Your task to perform on an android device: turn on notifications settings in the gmail app Image 0: 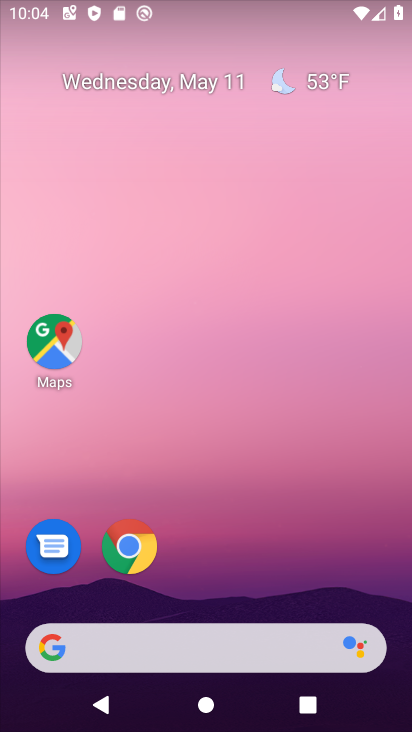
Step 0: drag from (399, 608) to (324, 0)
Your task to perform on an android device: turn on notifications settings in the gmail app Image 1: 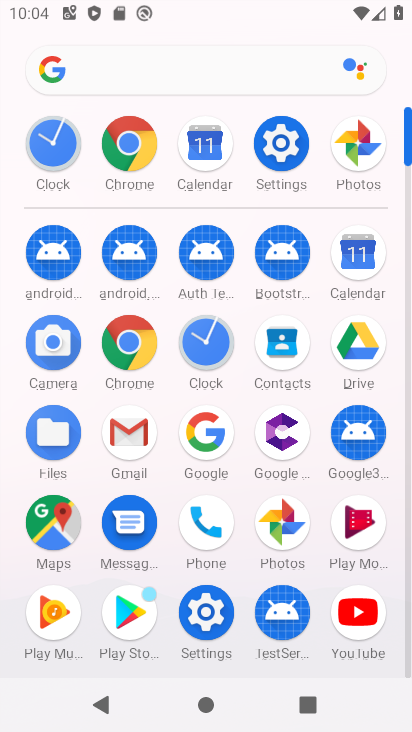
Step 1: click (147, 440)
Your task to perform on an android device: turn on notifications settings in the gmail app Image 2: 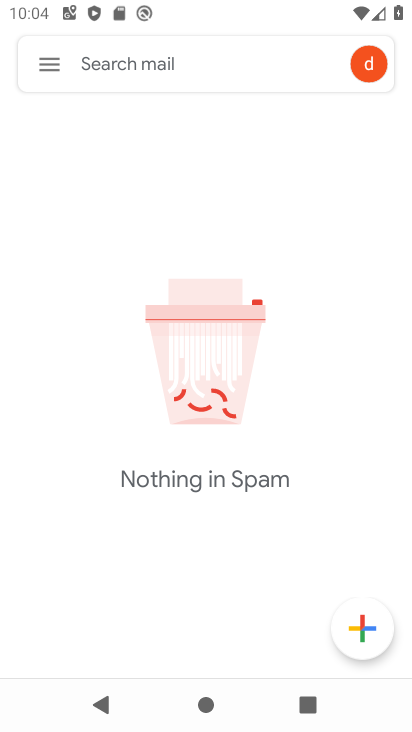
Step 2: click (37, 80)
Your task to perform on an android device: turn on notifications settings in the gmail app Image 3: 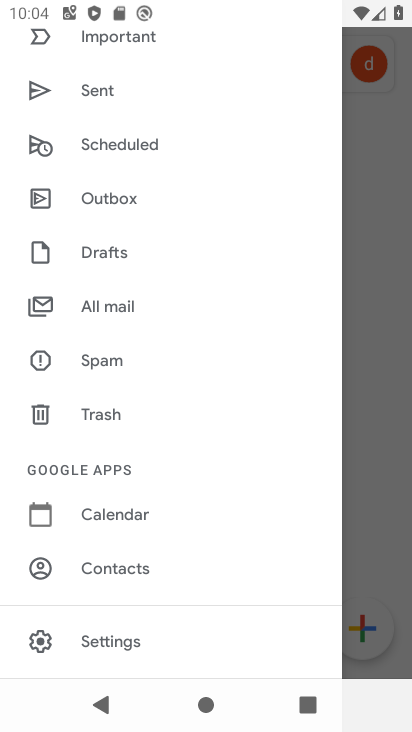
Step 3: click (156, 642)
Your task to perform on an android device: turn on notifications settings in the gmail app Image 4: 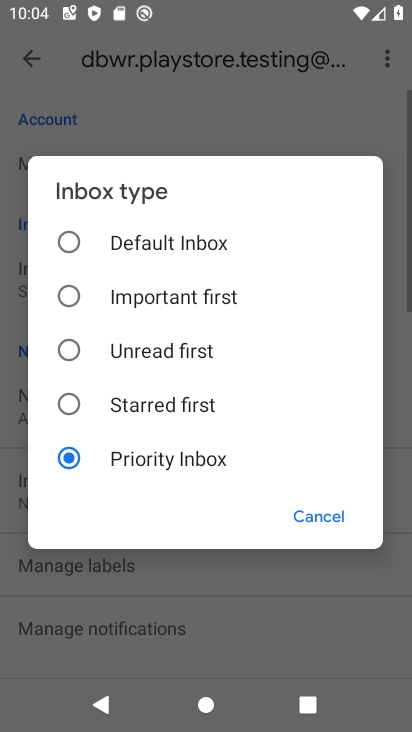
Step 4: click (304, 511)
Your task to perform on an android device: turn on notifications settings in the gmail app Image 5: 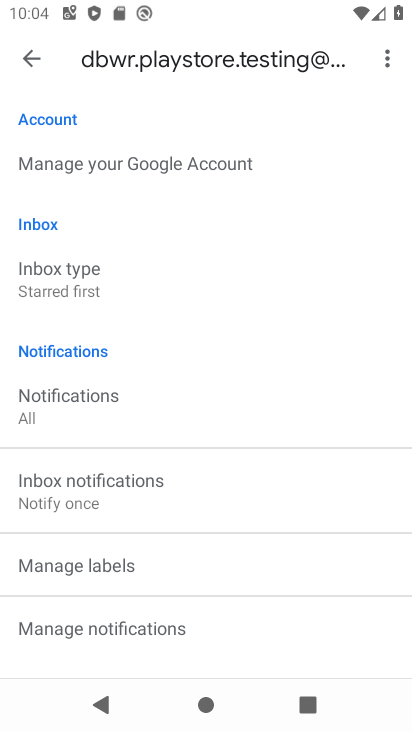
Step 5: click (74, 403)
Your task to perform on an android device: turn on notifications settings in the gmail app Image 6: 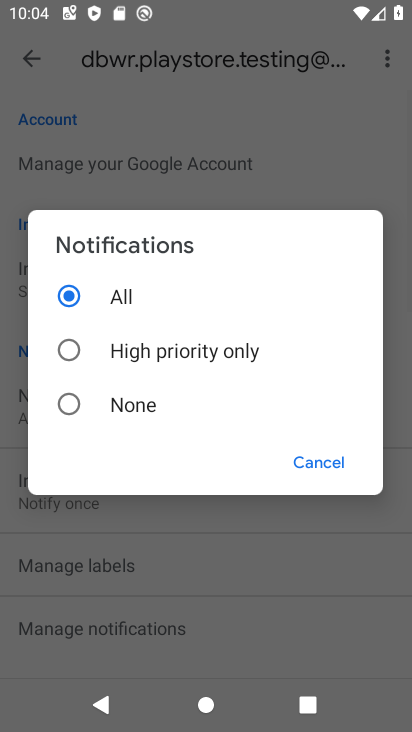
Step 6: task complete